Your task to perform on an android device: Open calendar and show me the fourth week of next month Image 0: 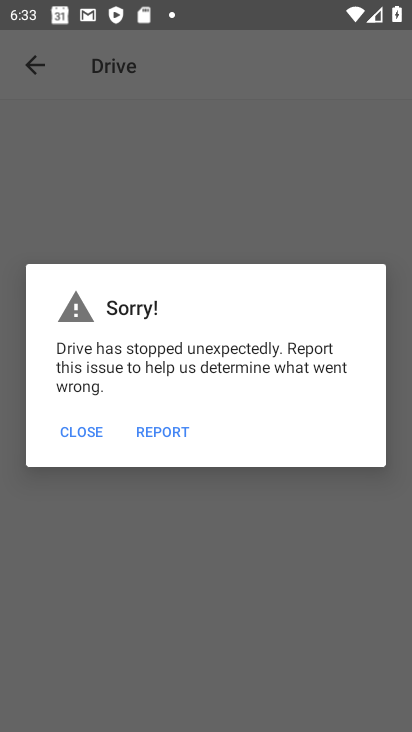
Step 0: press home button
Your task to perform on an android device: Open calendar and show me the fourth week of next month Image 1: 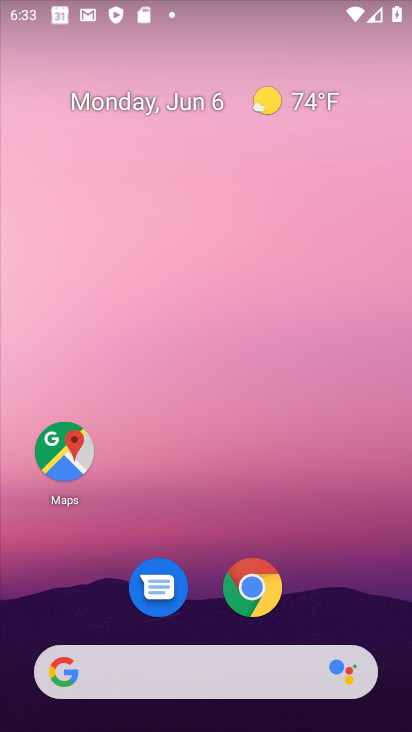
Step 1: drag from (383, 668) to (251, 10)
Your task to perform on an android device: Open calendar and show me the fourth week of next month Image 2: 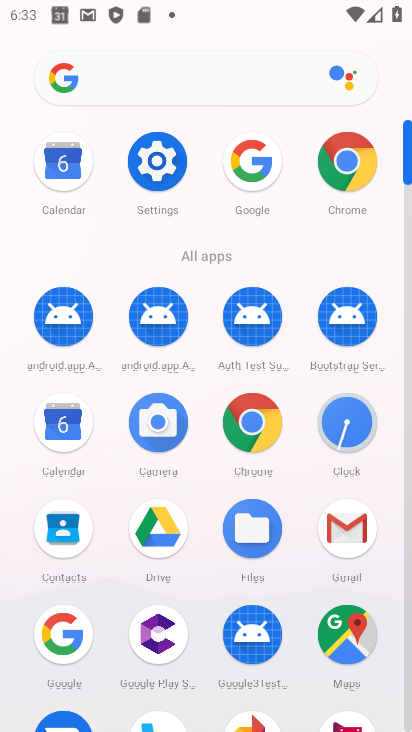
Step 2: click (57, 432)
Your task to perform on an android device: Open calendar and show me the fourth week of next month Image 3: 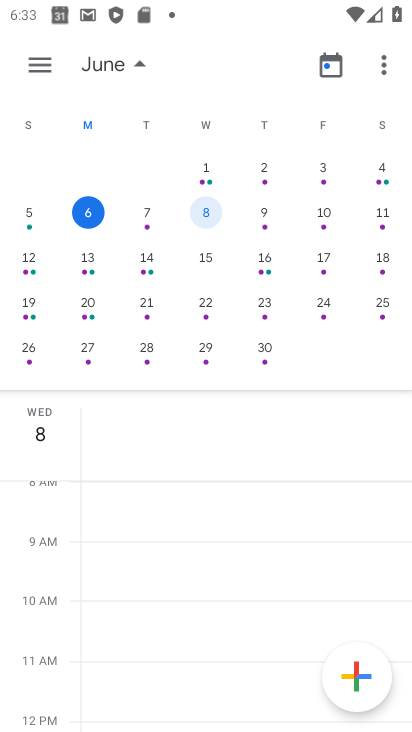
Step 3: drag from (356, 222) to (60, 233)
Your task to perform on an android device: Open calendar and show me the fourth week of next month Image 4: 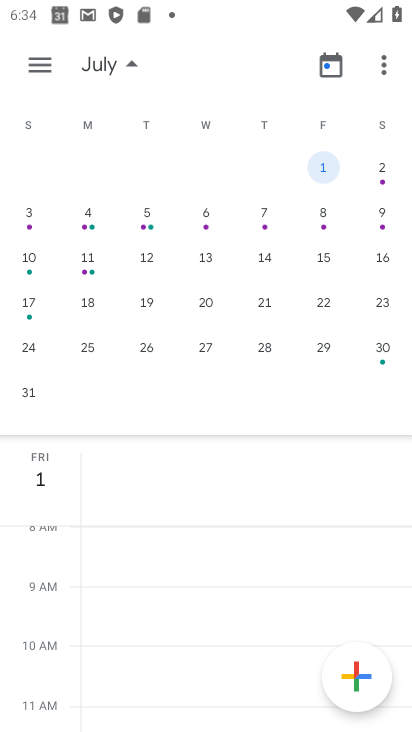
Step 4: click (376, 343)
Your task to perform on an android device: Open calendar and show me the fourth week of next month Image 5: 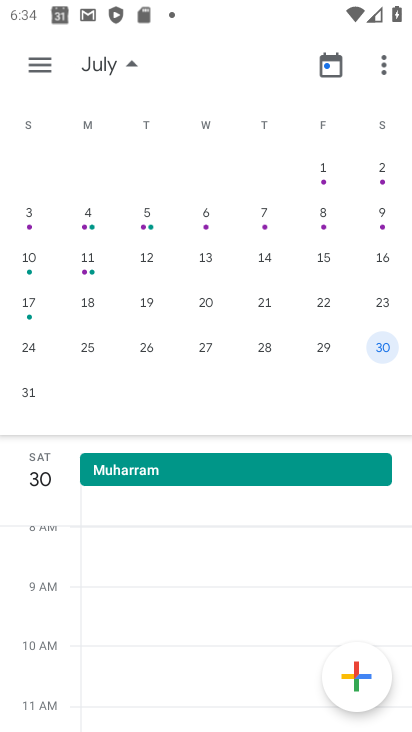
Step 5: task complete